Your task to perform on an android device: move an email to a new category in the gmail app Image 0: 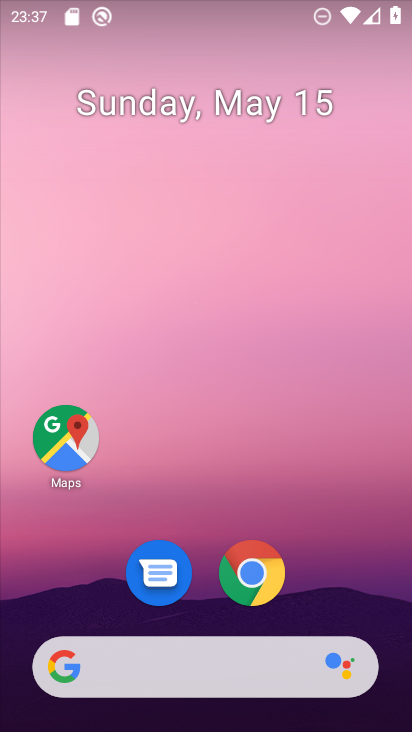
Step 0: press home button
Your task to perform on an android device: move an email to a new category in the gmail app Image 1: 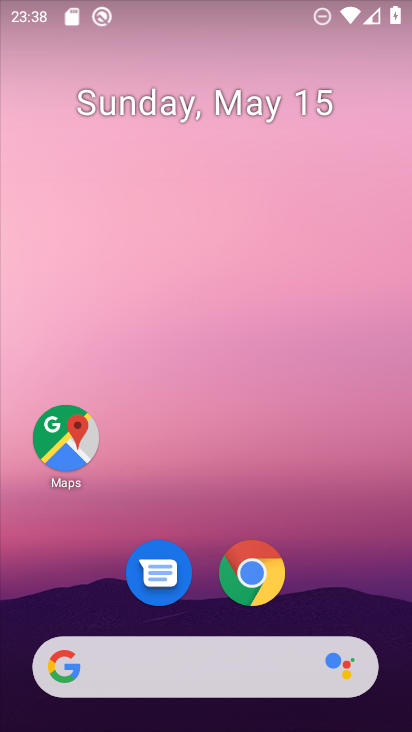
Step 1: drag from (304, 577) to (331, 113)
Your task to perform on an android device: move an email to a new category in the gmail app Image 2: 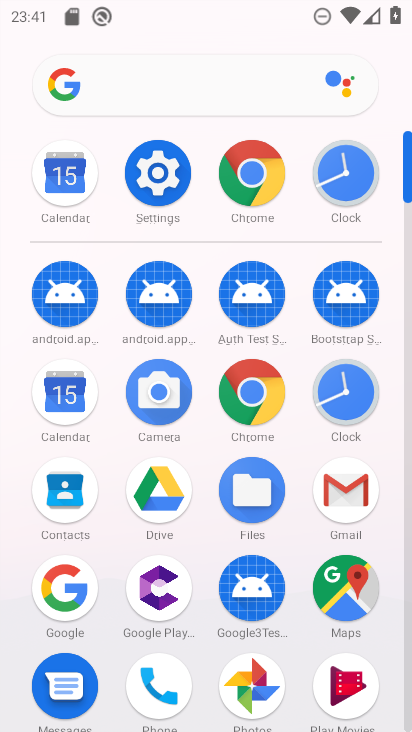
Step 2: click (354, 487)
Your task to perform on an android device: move an email to a new category in the gmail app Image 3: 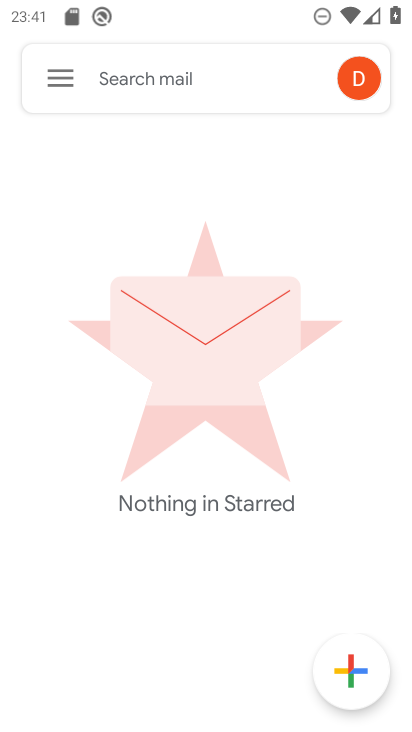
Step 3: task complete